Your task to perform on an android device: empty trash in google photos Image 0: 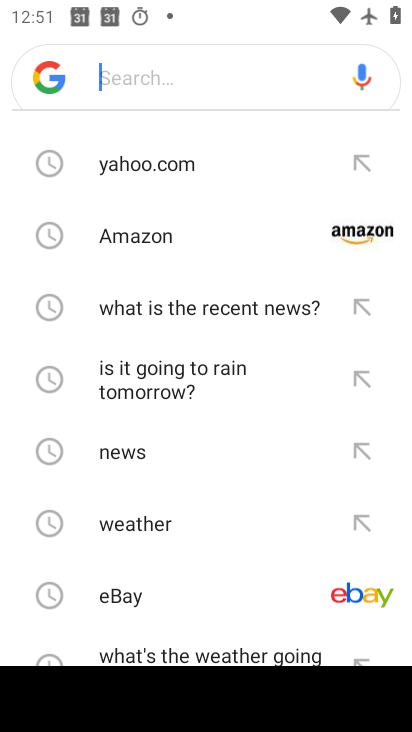
Step 0: press home button
Your task to perform on an android device: empty trash in google photos Image 1: 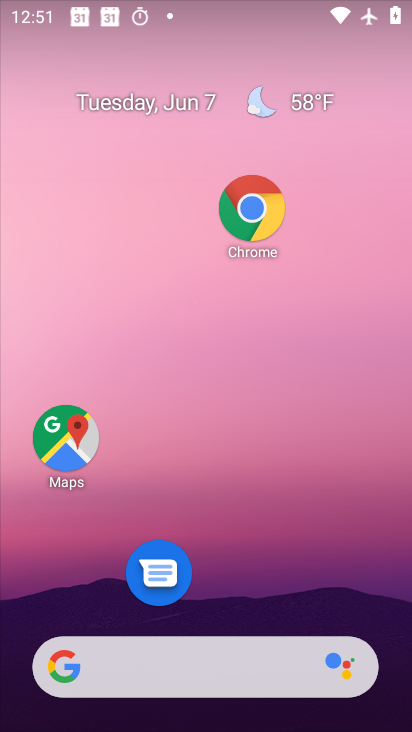
Step 1: drag from (229, 581) to (161, 120)
Your task to perform on an android device: empty trash in google photos Image 2: 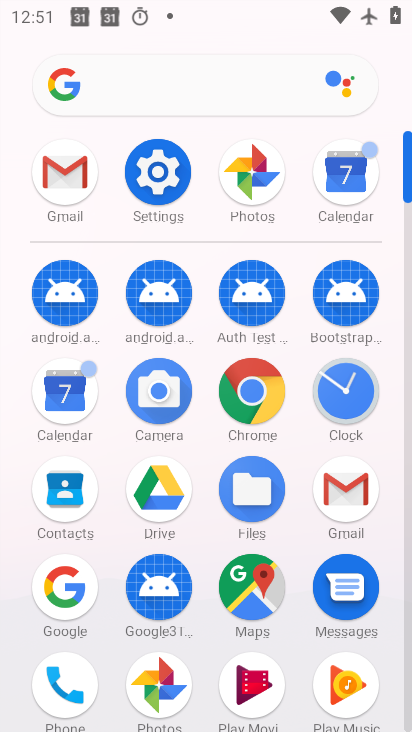
Step 2: click (243, 151)
Your task to perform on an android device: empty trash in google photos Image 3: 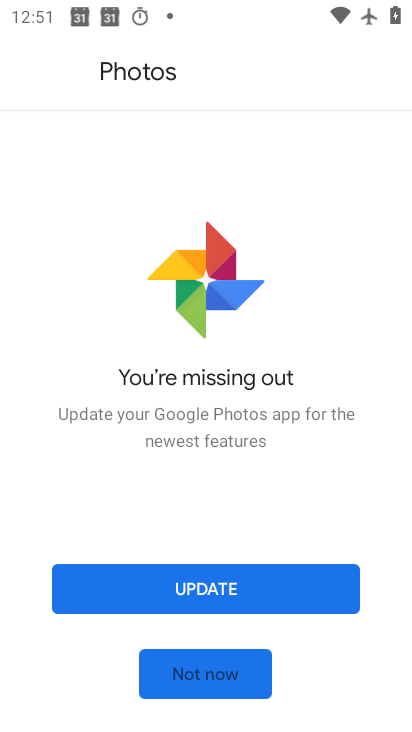
Step 3: click (230, 681)
Your task to perform on an android device: empty trash in google photos Image 4: 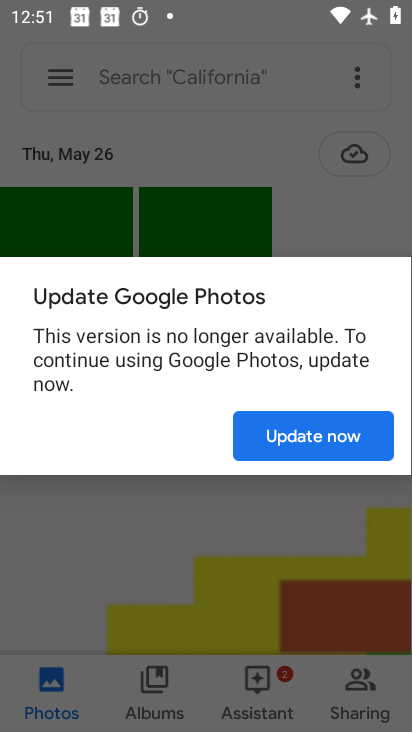
Step 4: click (321, 452)
Your task to perform on an android device: empty trash in google photos Image 5: 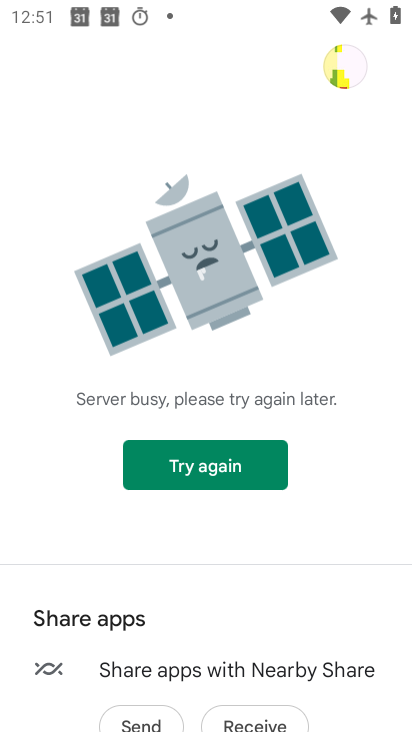
Step 5: press back button
Your task to perform on an android device: empty trash in google photos Image 6: 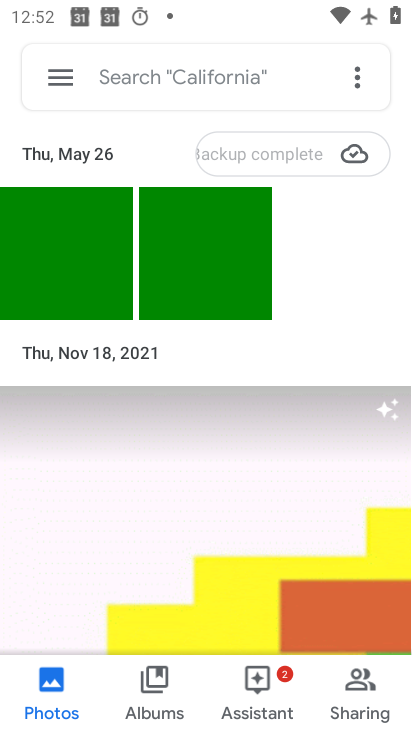
Step 6: click (60, 72)
Your task to perform on an android device: empty trash in google photos Image 7: 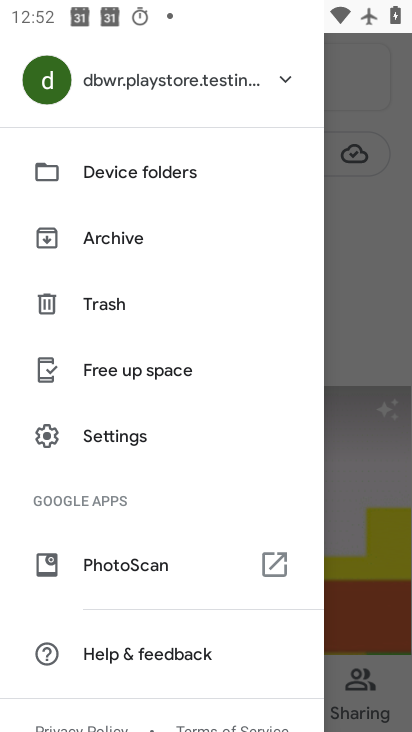
Step 7: click (124, 306)
Your task to perform on an android device: empty trash in google photos Image 8: 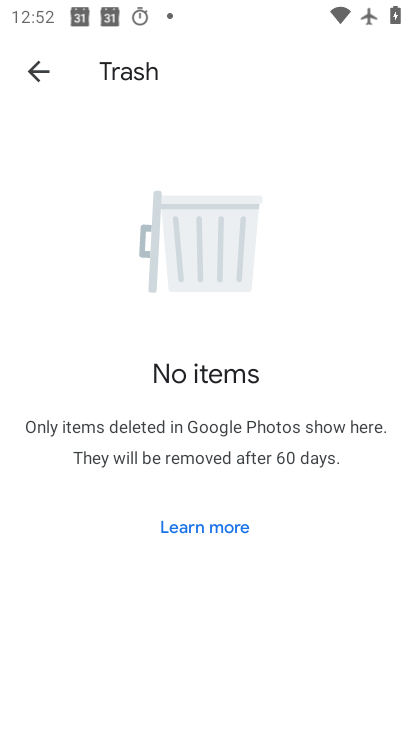
Step 8: task complete